Your task to perform on an android device: move an email to a new category in the gmail app Image 0: 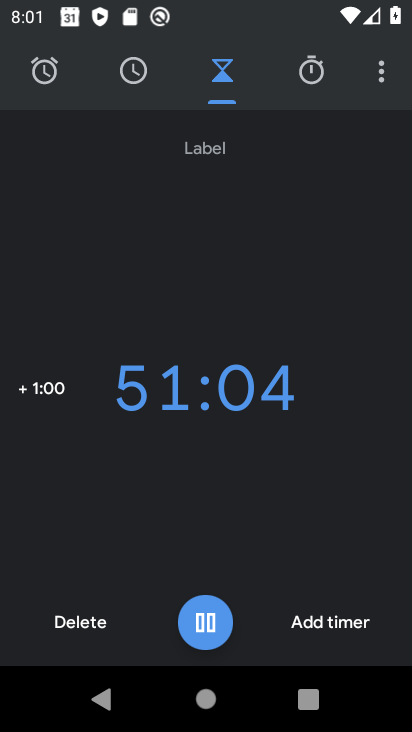
Step 0: press home button
Your task to perform on an android device: move an email to a new category in the gmail app Image 1: 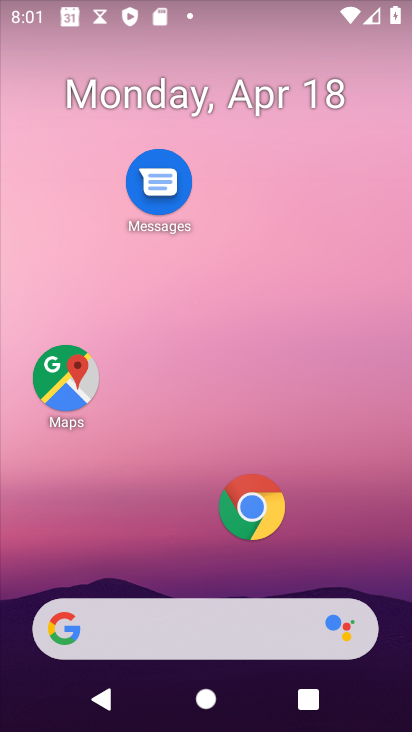
Step 1: drag from (227, 591) to (277, 230)
Your task to perform on an android device: move an email to a new category in the gmail app Image 2: 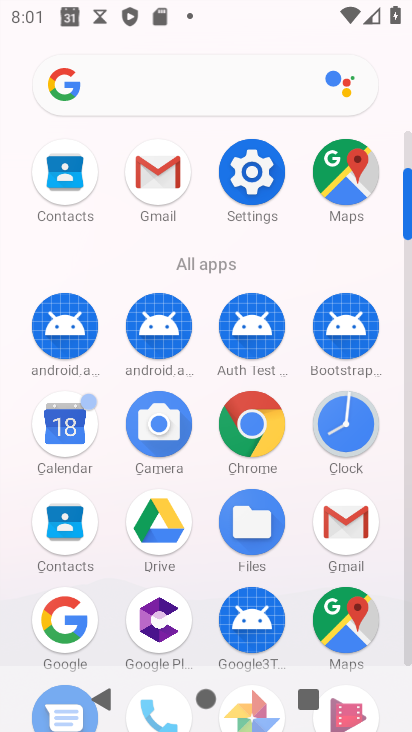
Step 2: click (326, 523)
Your task to perform on an android device: move an email to a new category in the gmail app Image 3: 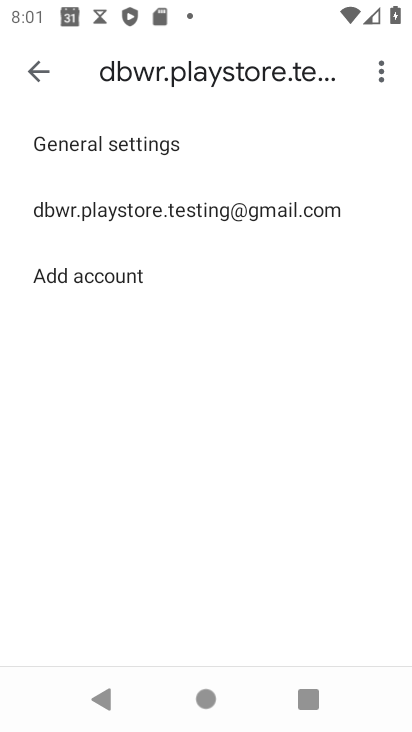
Step 3: click (39, 66)
Your task to perform on an android device: move an email to a new category in the gmail app Image 4: 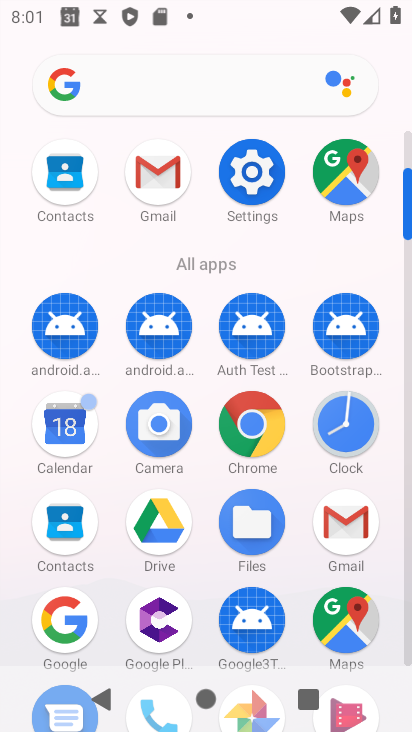
Step 4: click (155, 174)
Your task to perform on an android device: move an email to a new category in the gmail app Image 5: 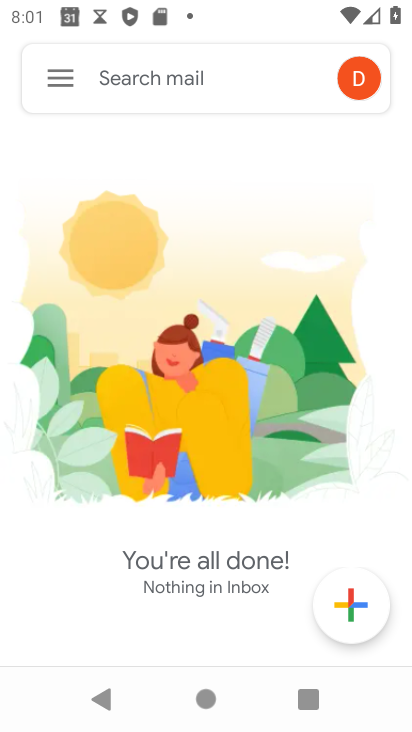
Step 5: task complete